Your task to perform on an android device: turn off picture-in-picture Image 0: 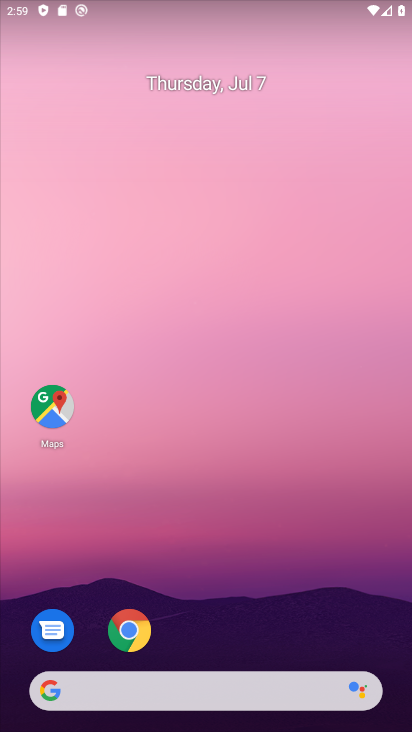
Step 0: drag from (218, 635) to (153, 20)
Your task to perform on an android device: turn off picture-in-picture Image 1: 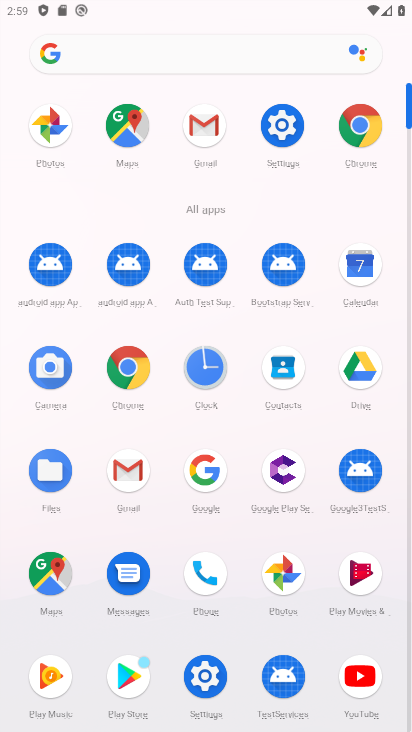
Step 1: click (136, 375)
Your task to perform on an android device: turn off picture-in-picture Image 2: 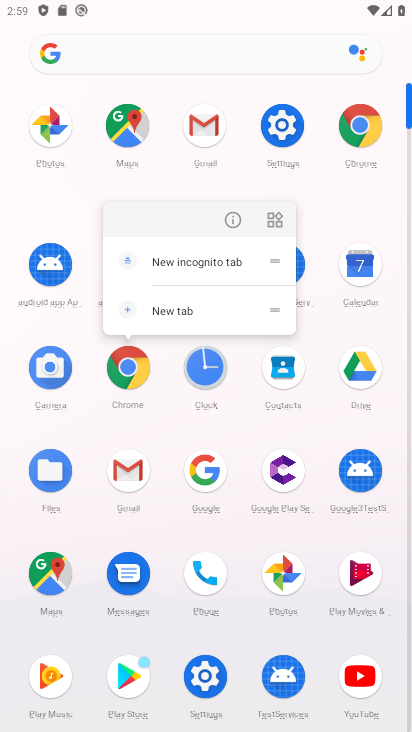
Step 2: click (234, 221)
Your task to perform on an android device: turn off picture-in-picture Image 3: 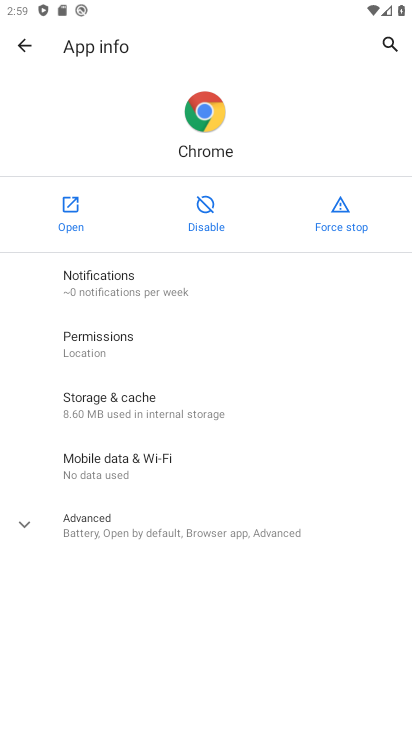
Step 3: click (94, 530)
Your task to perform on an android device: turn off picture-in-picture Image 4: 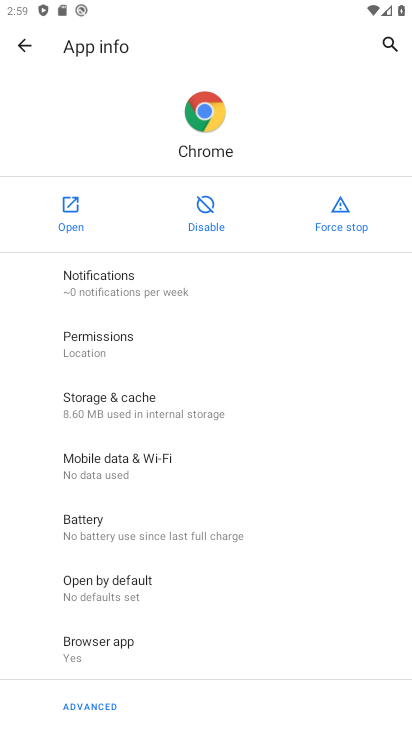
Step 4: drag from (127, 643) to (134, 494)
Your task to perform on an android device: turn off picture-in-picture Image 5: 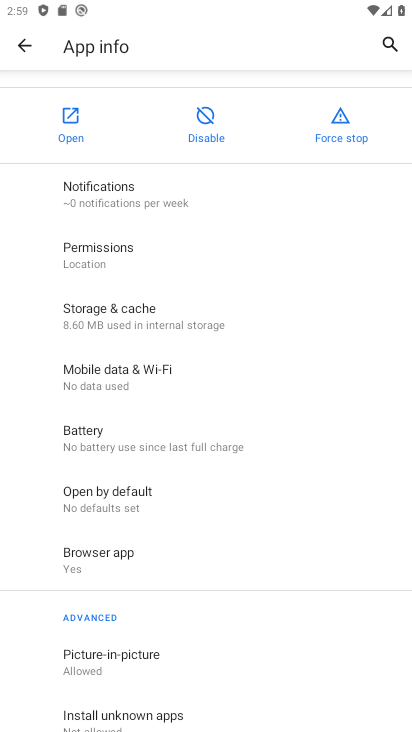
Step 5: click (123, 664)
Your task to perform on an android device: turn off picture-in-picture Image 6: 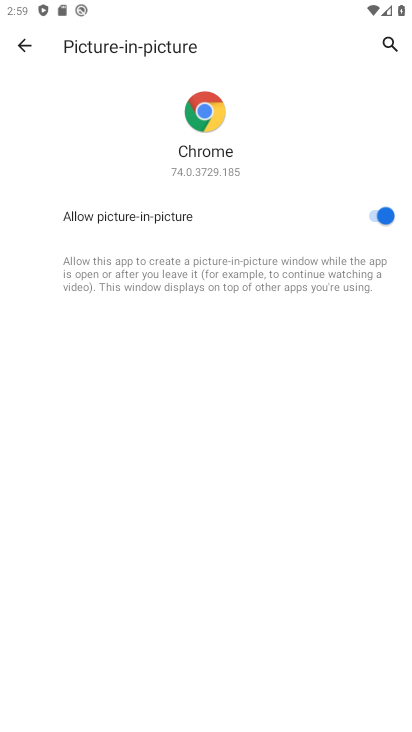
Step 6: click (365, 214)
Your task to perform on an android device: turn off picture-in-picture Image 7: 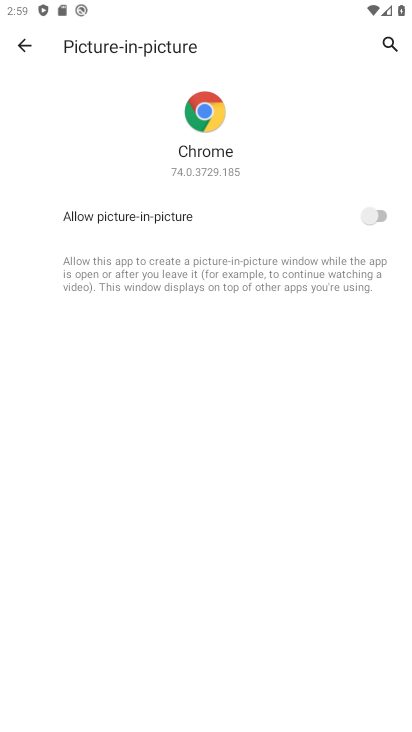
Step 7: task complete